Your task to perform on an android device: Searchfor good French restaurants Image 0: 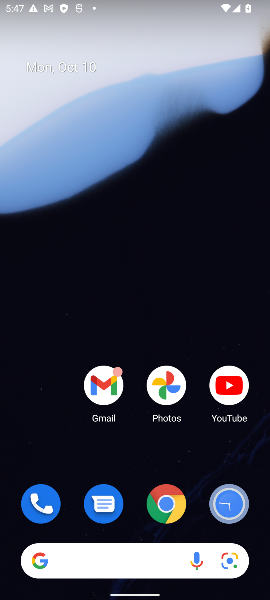
Step 0: drag from (174, 497) to (131, 82)
Your task to perform on an android device: Searchfor good French restaurants Image 1: 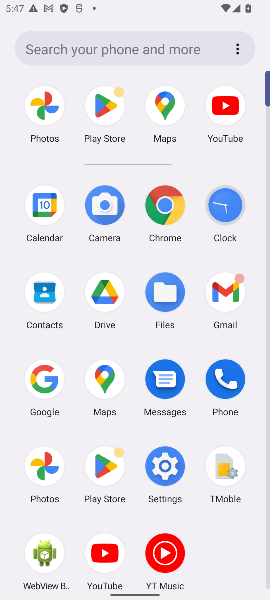
Step 1: click (164, 195)
Your task to perform on an android device: Searchfor good French restaurants Image 2: 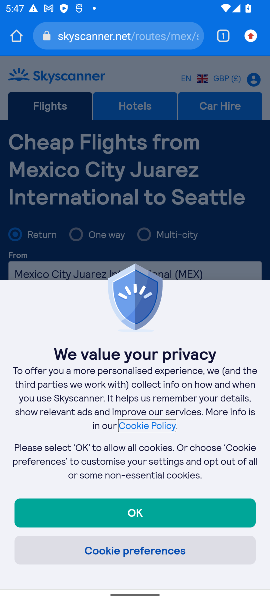
Step 2: click (107, 34)
Your task to perform on an android device: Searchfor good French restaurants Image 3: 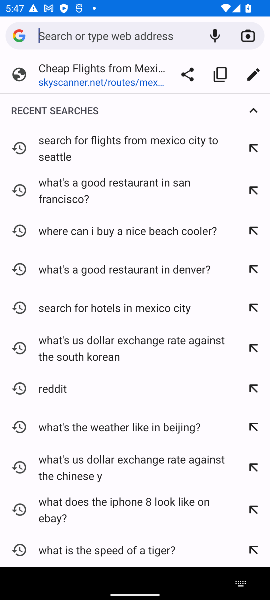
Step 3: type "Searchfor good French restaurants"
Your task to perform on an android device: Searchfor good French restaurants Image 4: 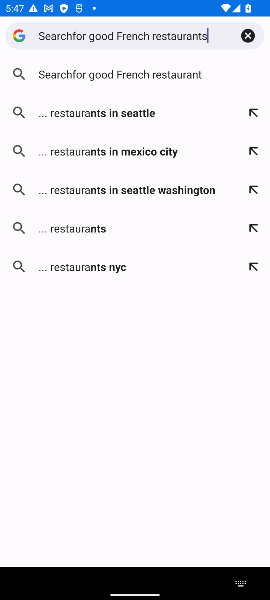
Step 4: press enter
Your task to perform on an android device: Searchfor good French restaurants Image 5: 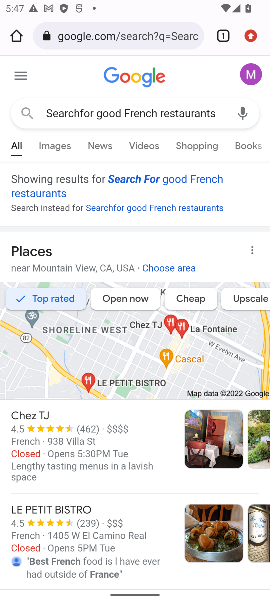
Step 5: task complete